Your task to perform on an android device: turn off location history Image 0: 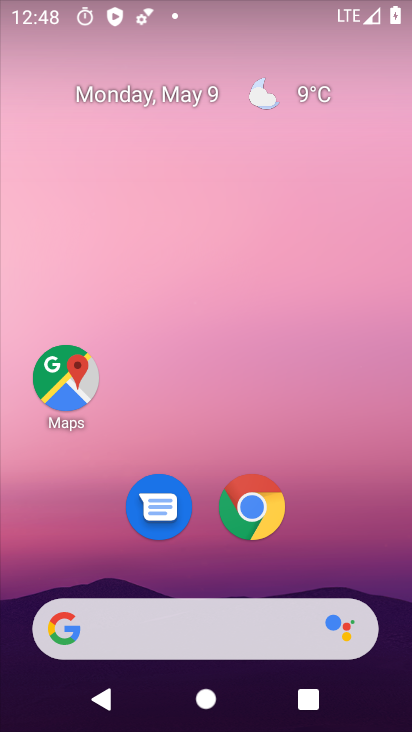
Step 0: drag from (202, 725) to (187, 115)
Your task to perform on an android device: turn off location history Image 1: 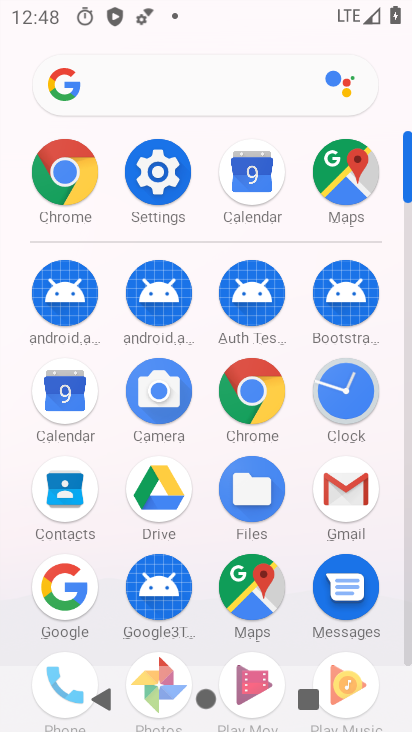
Step 1: click (153, 172)
Your task to perform on an android device: turn off location history Image 2: 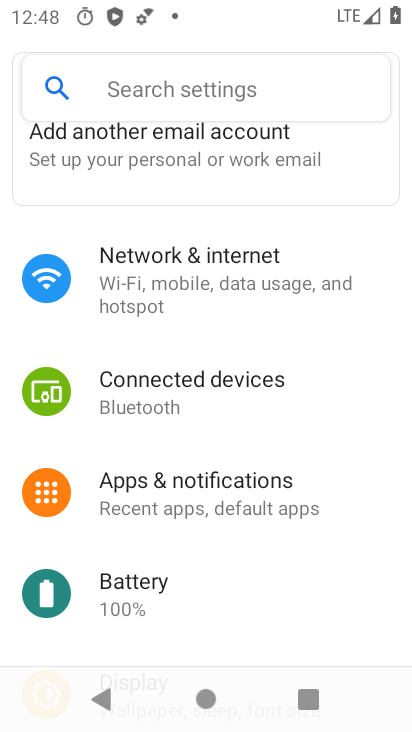
Step 2: drag from (200, 633) to (181, 245)
Your task to perform on an android device: turn off location history Image 3: 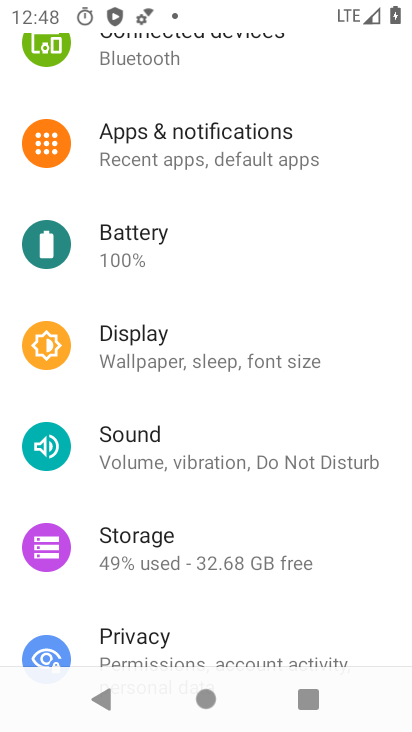
Step 3: drag from (218, 642) to (214, 403)
Your task to perform on an android device: turn off location history Image 4: 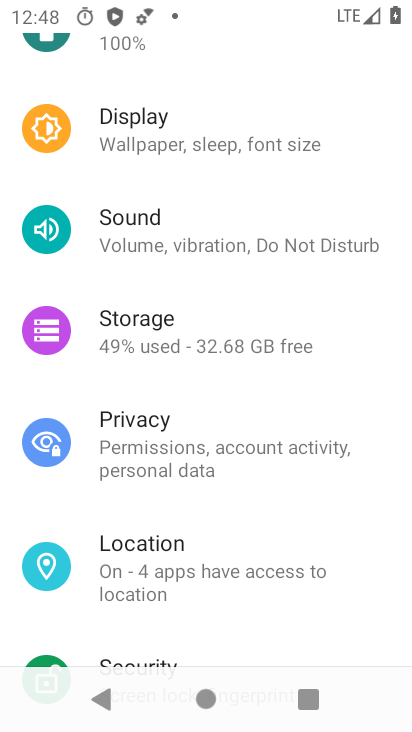
Step 4: click (158, 559)
Your task to perform on an android device: turn off location history Image 5: 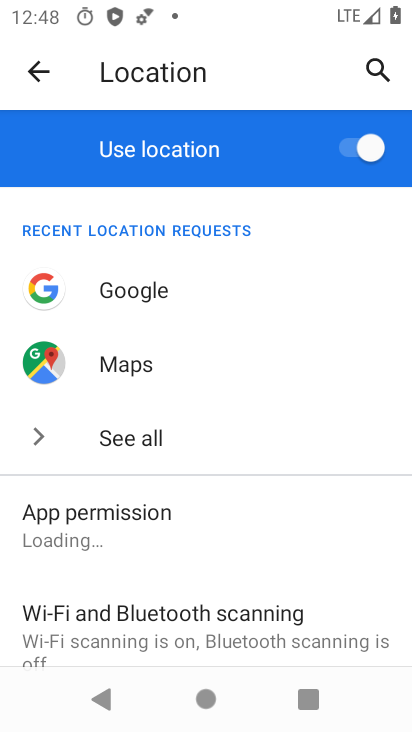
Step 5: drag from (203, 612) to (198, 328)
Your task to perform on an android device: turn off location history Image 6: 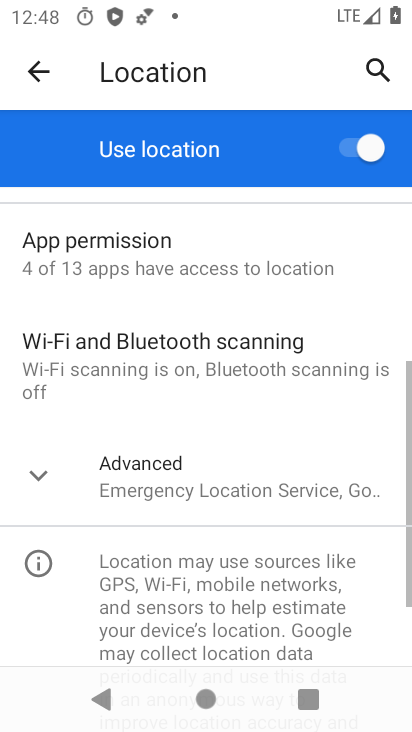
Step 6: click (165, 485)
Your task to perform on an android device: turn off location history Image 7: 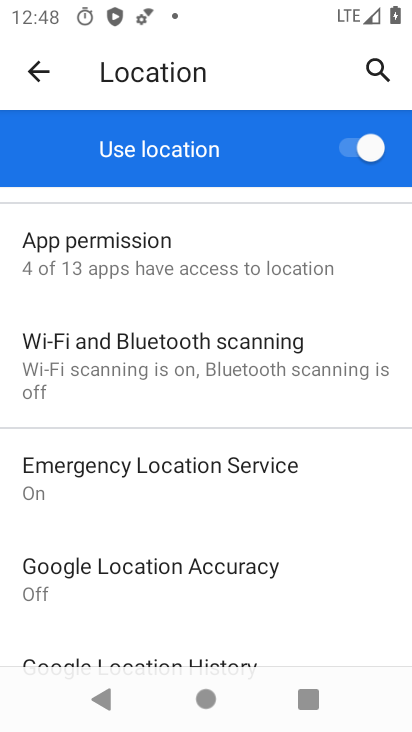
Step 7: drag from (233, 654) to (226, 424)
Your task to perform on an android device: turn off location history Image 8: 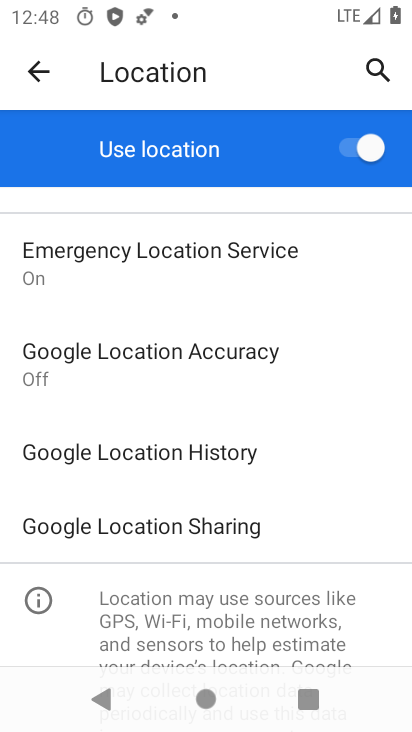
Step 8: click (198, 454)
Your task to perform on an android device: turn off location history Image 9: 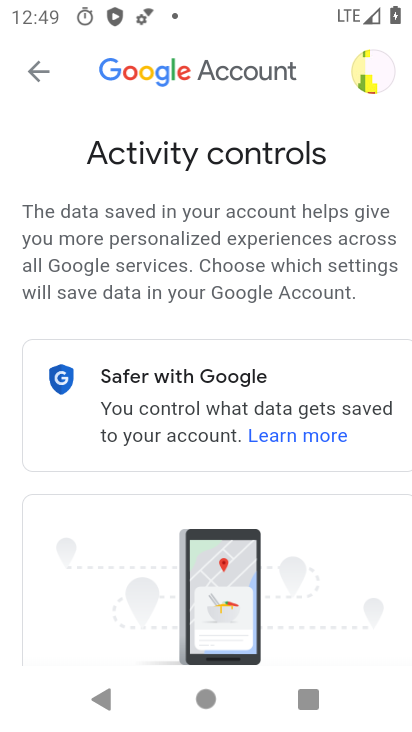
Step 9: drag from (101, 605) to (107, 199)
Your task to perform on an android device: turn off location history Image 10: 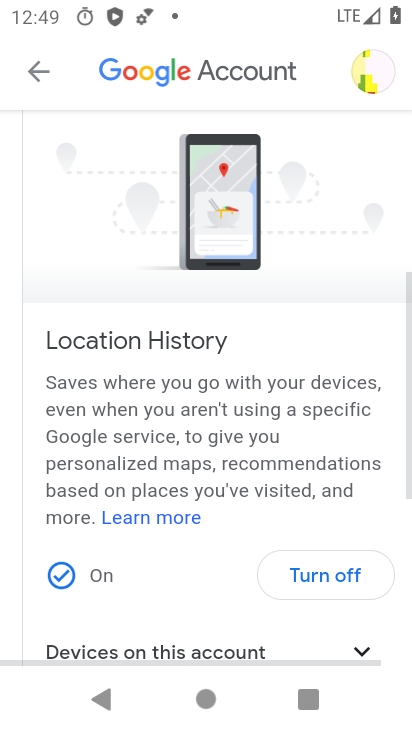
Step 10: drag from (231, 613) to (227, 299)
Your task to perform on an android device: turn off location history Image 11: 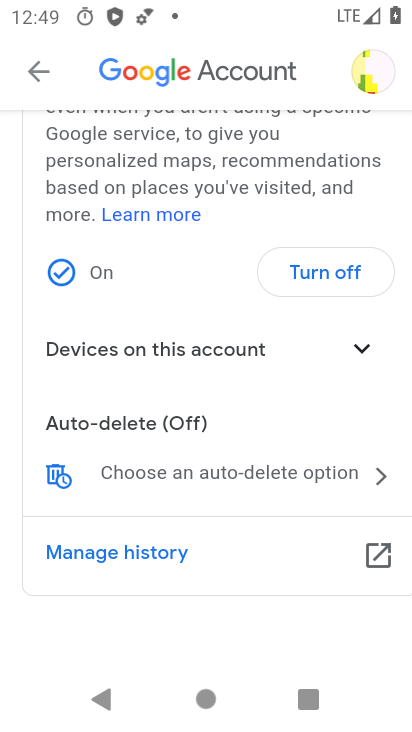
Step 11: click (317, 273)
Your task to perform on an android device: turn off location history Image 12: 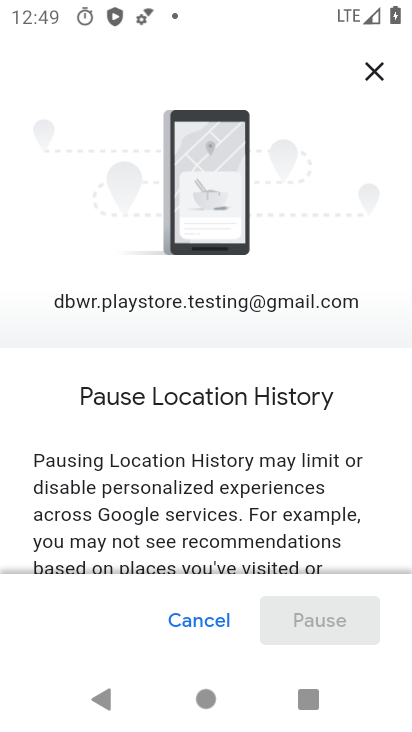
Step 12: drag from (241, 558) to (239, 213)
Your task to perform on an android device: turn off location history Image 13: 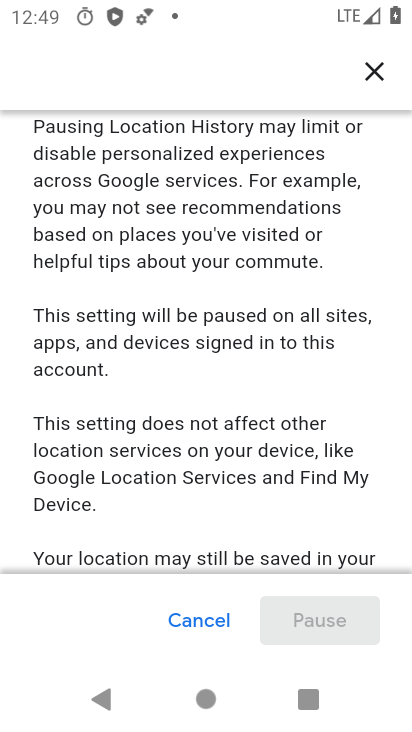
Step 13: drag from (293, 533) to (295, 217)
Your task to perform on an android device: turn off location history Image 14: 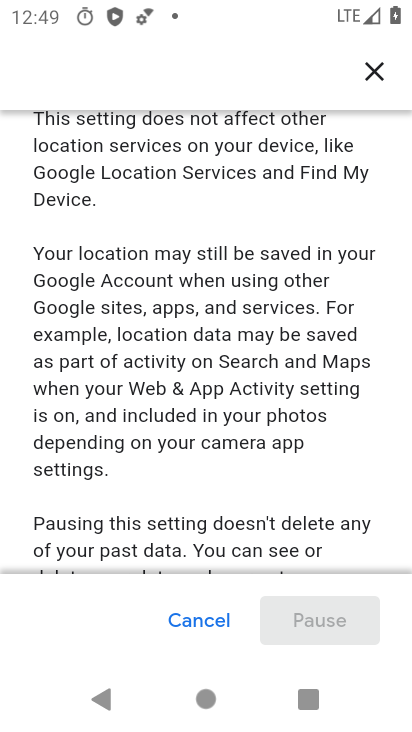
Step 14: drag from (319, 543) to (314, 138)
Your task to perform on an android device: turn off location history Image 15: 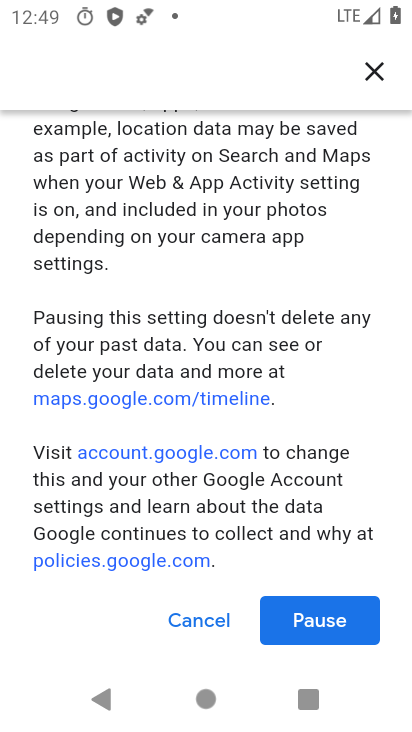
Step 15: click (331, 612)
Your task to perform on an android device: turn off location history Image 16: 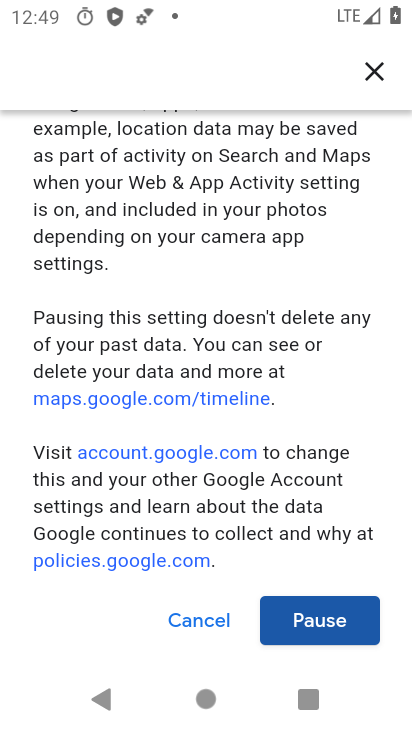
Step 16: click (329, 615)
Your task to perform on an android device: turn off location history Image 17: 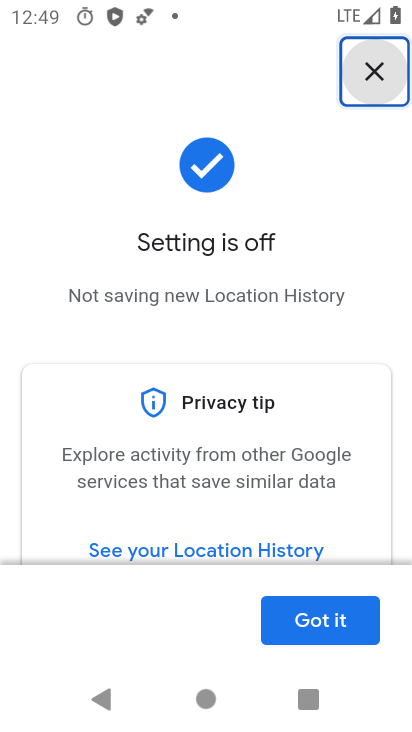
Step 17: task complete